Your task to perform on an android device: clear history in the chrome app Image 0: 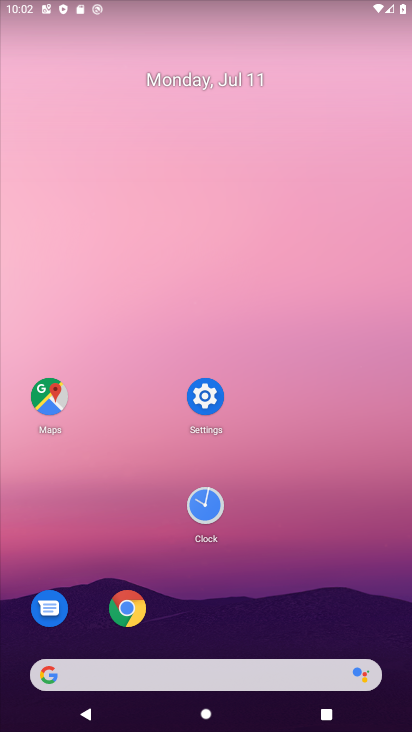
Step 0: click (124, 607)
Your task to perform on an android device: clear history in the chrome app Image 1: 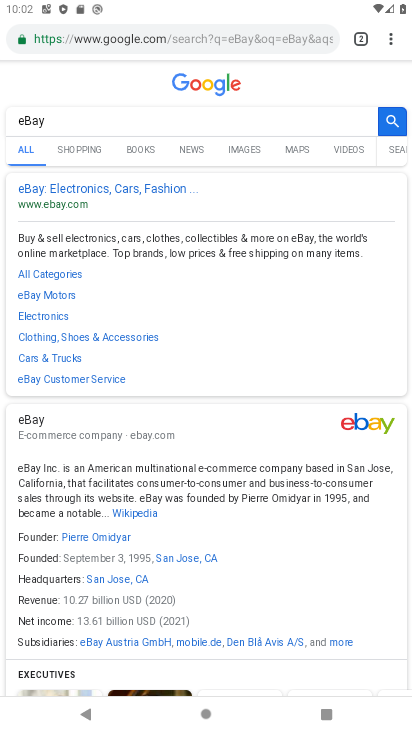
Step 1: click (390, 31)
Your task to perform on an android device: clear history in the chrome app Image 2: 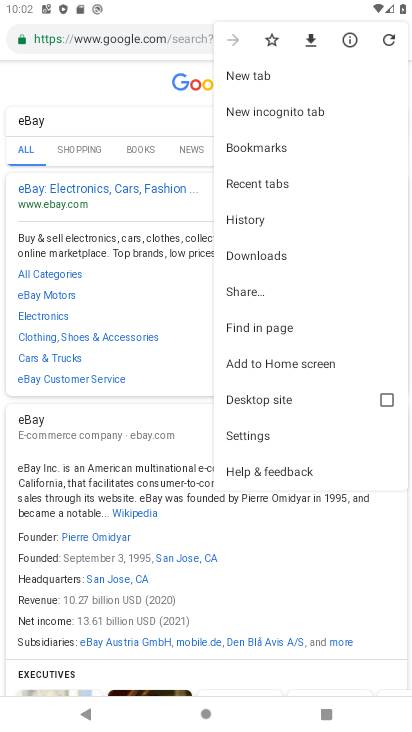
Step 2: click (243, 221)
Your task to perform on an android device: clear history in the chrome app Image 3: 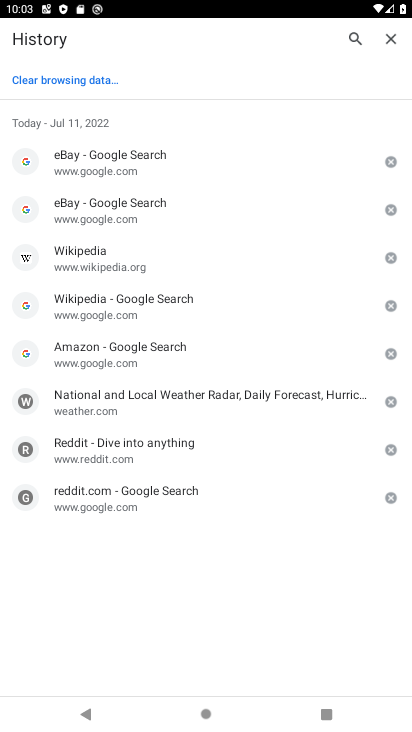
Step 3: click (53, 77)
Your task to perform on an android device: clear history in the chrome app Image 4: 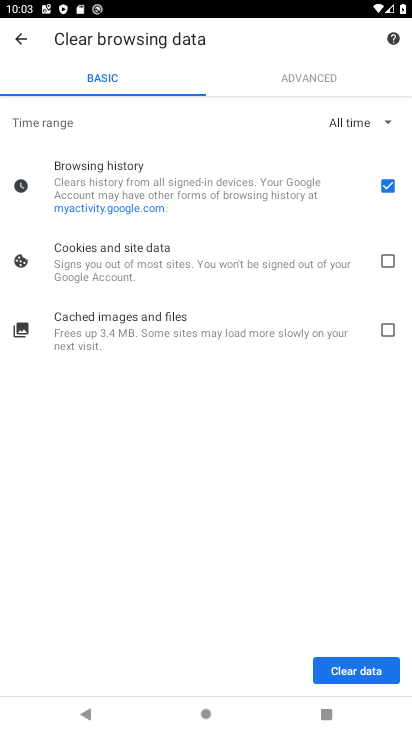
Step 4: click (371, 672)
Your task to perform on an android device: clear history in the chrome app Image 5: 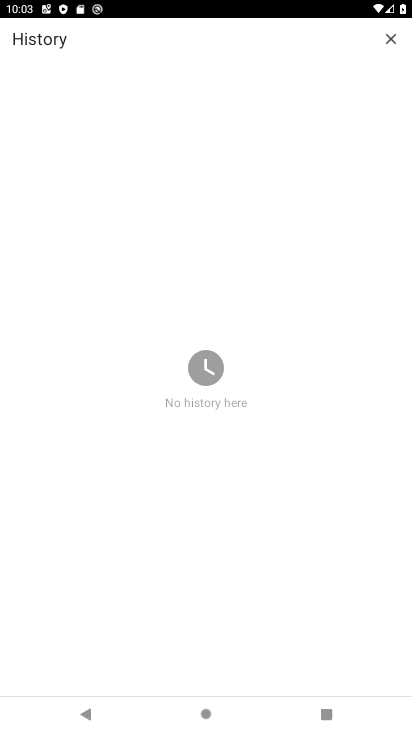
Step 5: task complete